Your task to perform on an android device: What's the news about the US economy? Image 0: 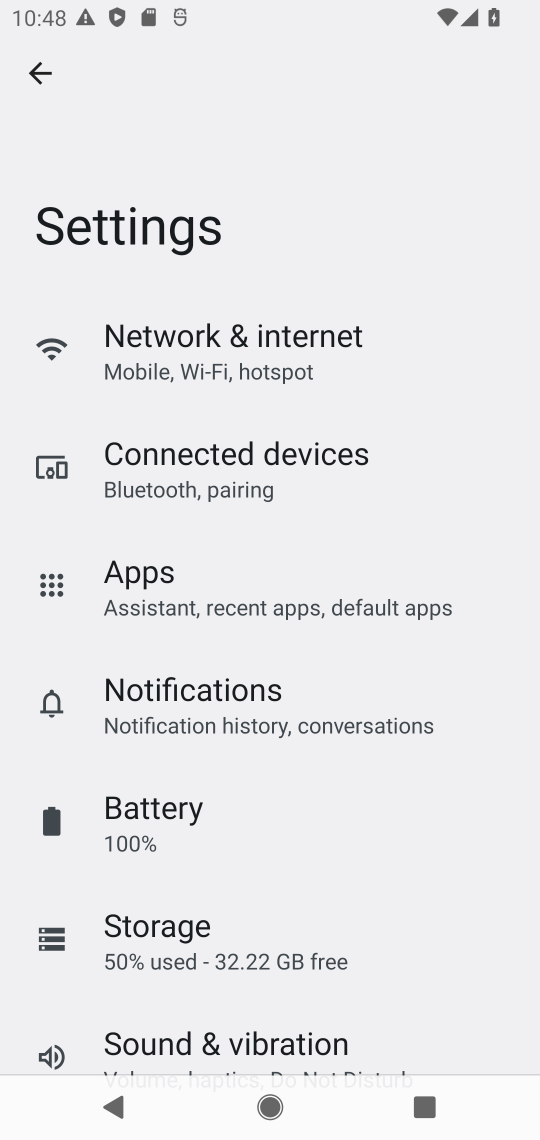
Step 0: press home button
Your task to perform on an android device: What's the news about the US economy? Image 1: 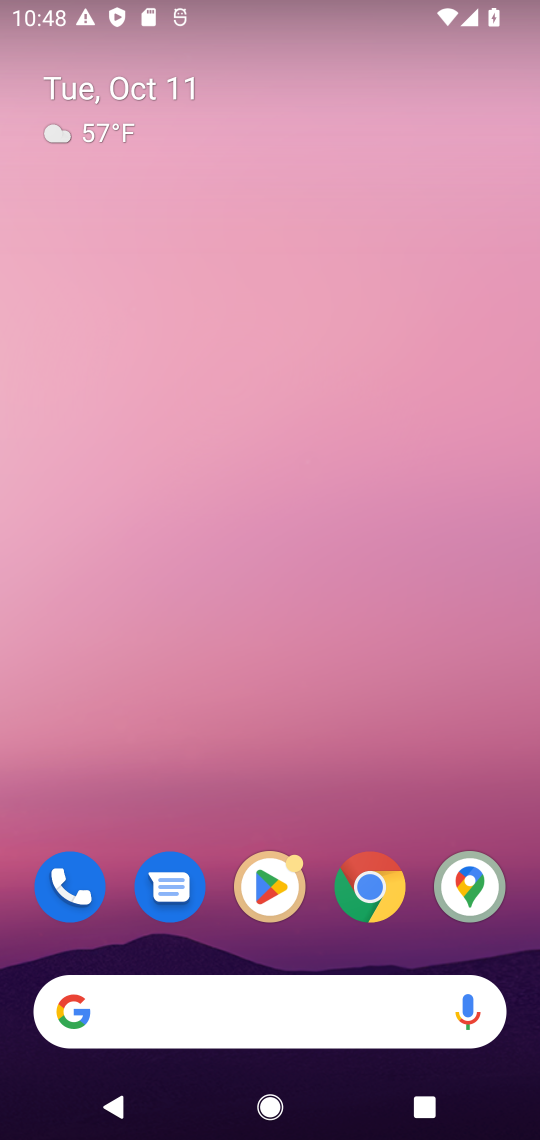
Step 1: click (234, 1006)
Your task to perform on an android device: What's the news about the US economy? Image 2: 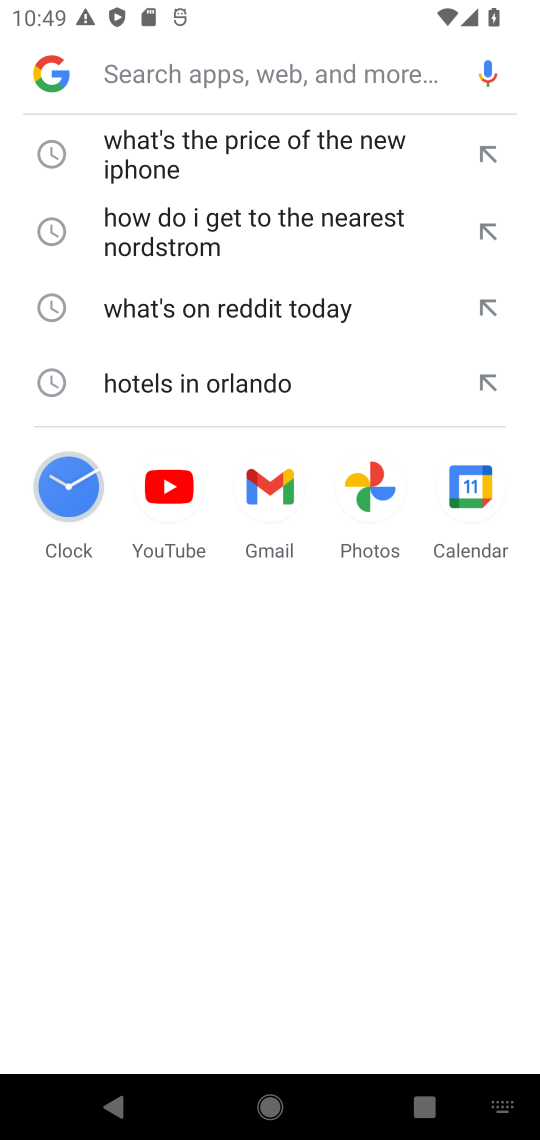
Step 2: type "What's the news about the US economy"
Your task to perform on an android device: What's the news about the US economy? Image 3: 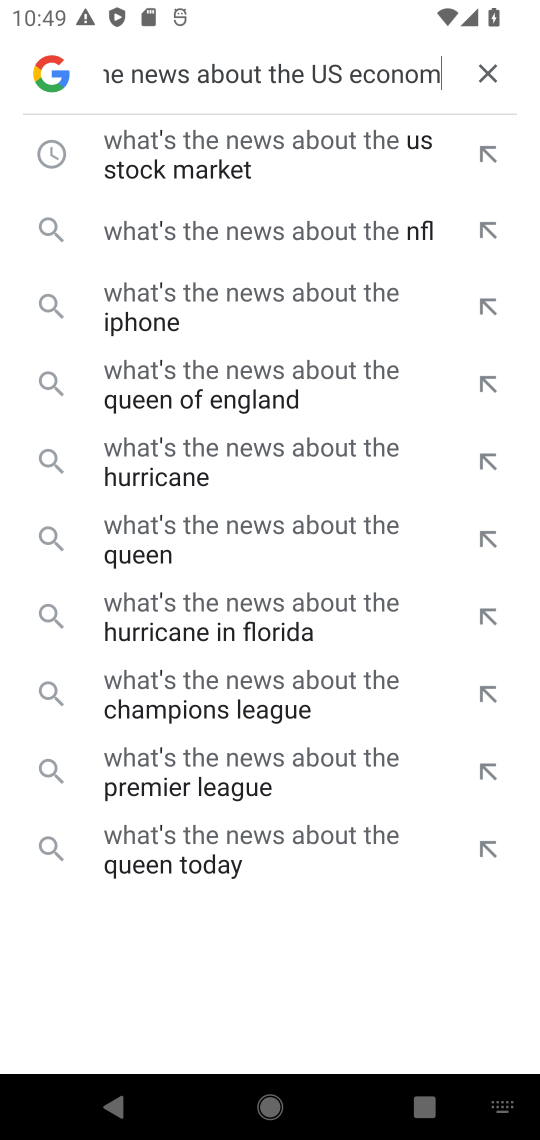
Step 3: press enter
Your task to perform on an android device: What's the news about the US economy? Image 4: 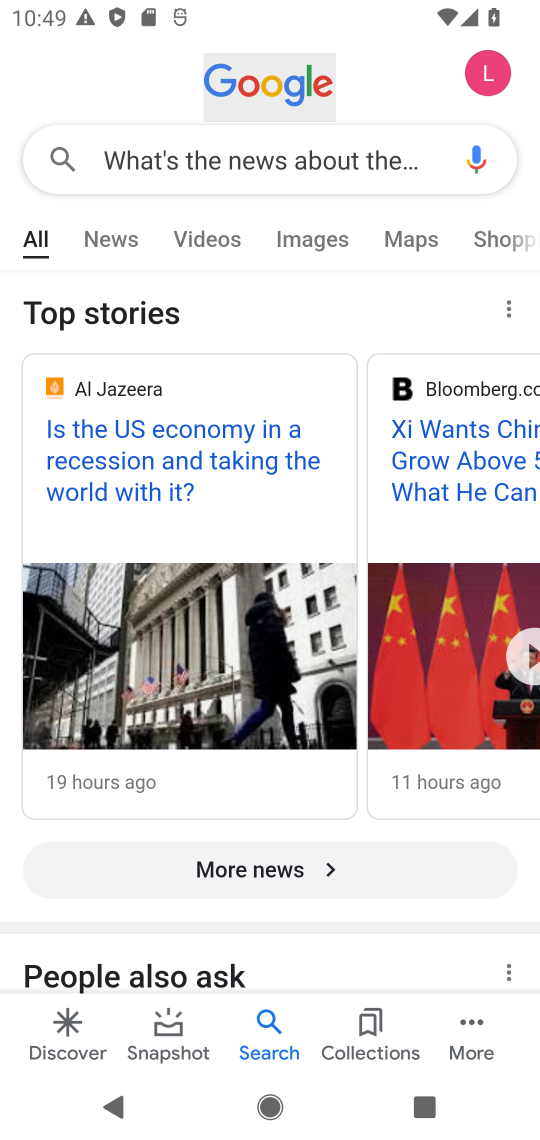
Step 4: drag from (382, 874) to (375, 679)
Your task to perform on an android device: What's the news about the US economy? Image 5: 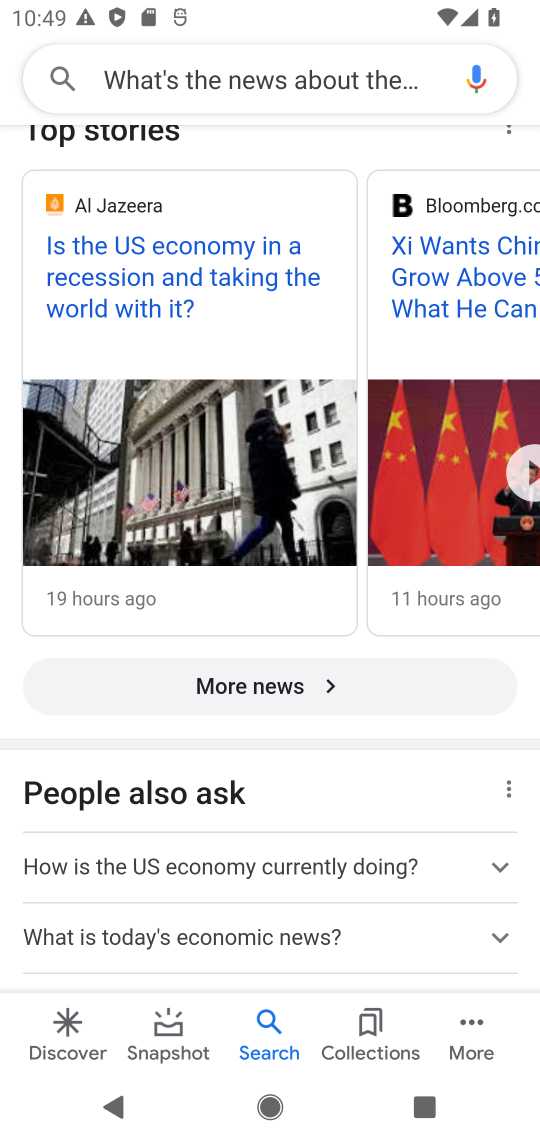
Step 5: drag from (380, 837) to (380, 646)
Your task to perform on an android device: What's the news about the US economy? Image 6: 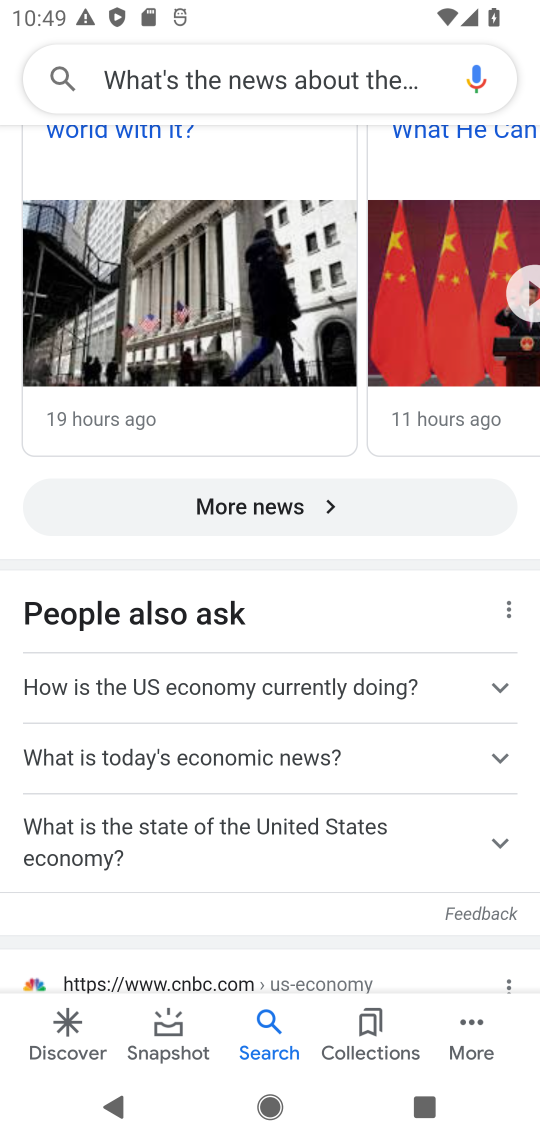
Step 6: drag from (323, 827) to (352, 511)
Your task to perform on an android device: What's the news about the US economy? Image 7: 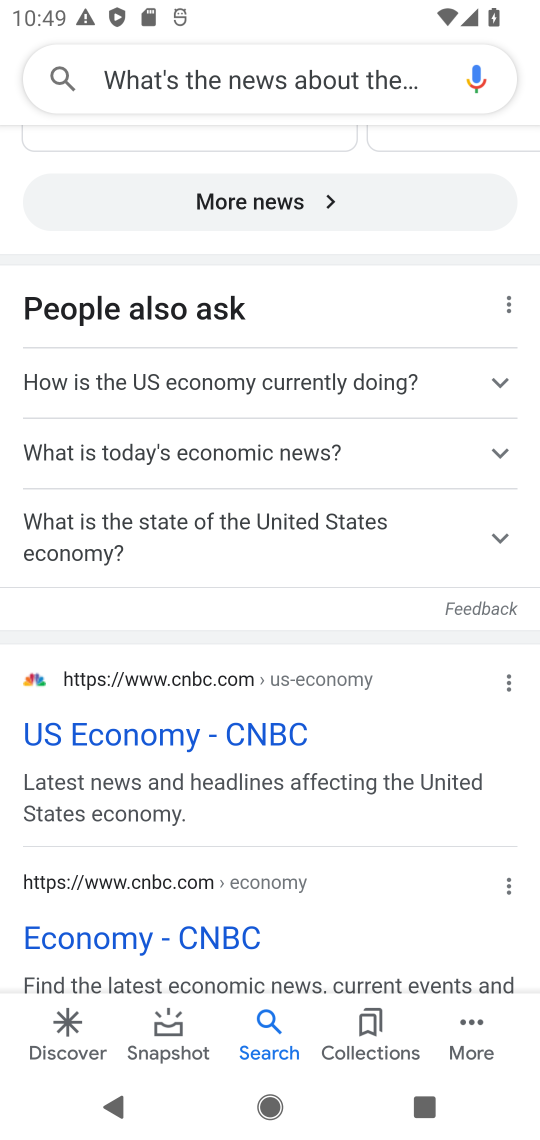
Step 7: click (257, 739)
Your task to perform on an android device: What's the news about the US economy? Image 8: 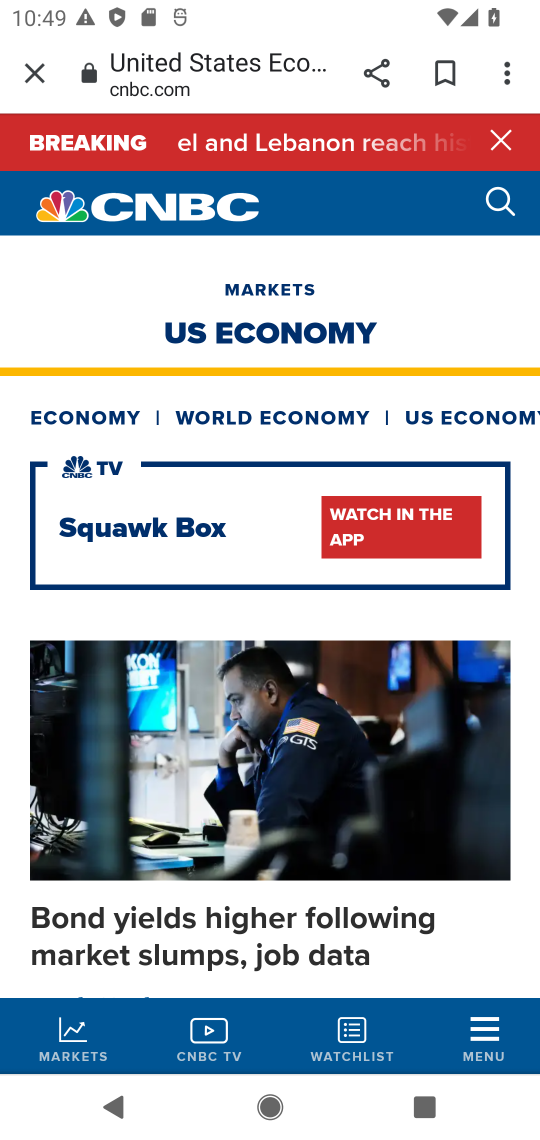
Step 8: task complete